Your task to perform on an android device: Go to calendar. Show me events next week Image 0: 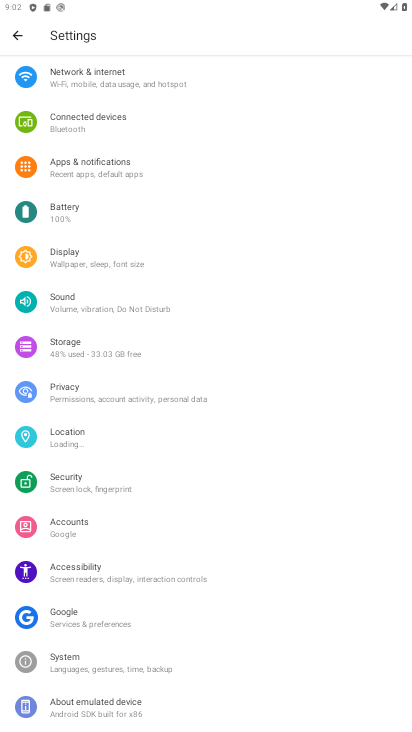
Step 0: press home button
Your task to perform on an android device: Go to calendar. Show me events next week Image 1: 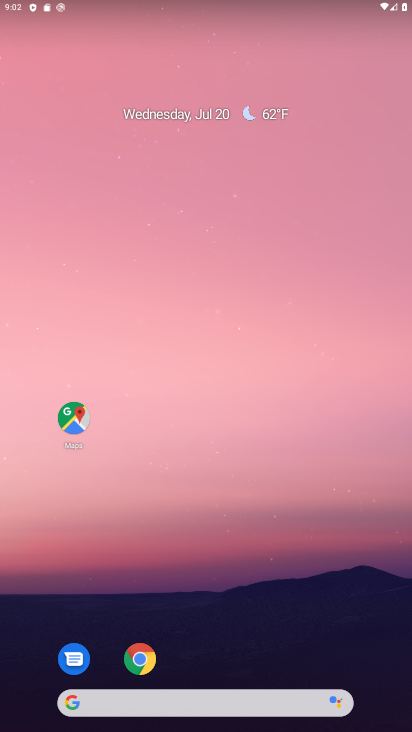
Step 1: drag from (209, 678) to (217, 8)
Your task to perform on an android device: Go to calendar. Show me events next week Image 2: 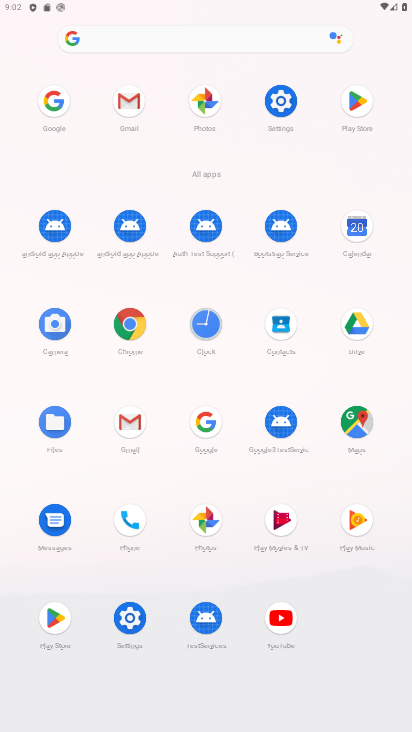
Step 2: click (351, 223)
Your task to perform on an android device: Go to calendar. Show me events next week Image 3: 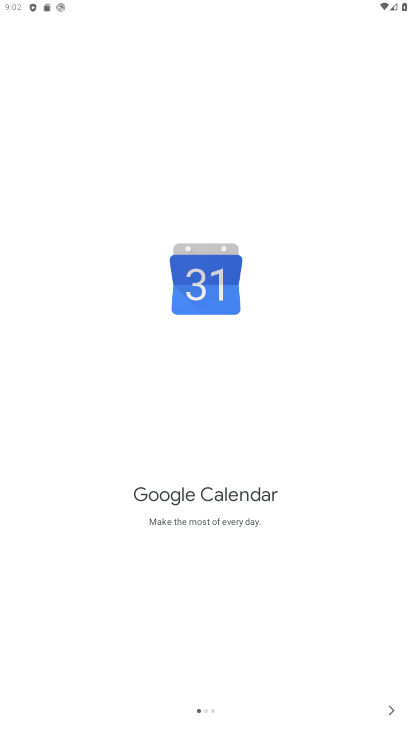
Step 3: click (393, 705)
Your task to perform on an android device: Go to calendar. Show me events next week Image 4: 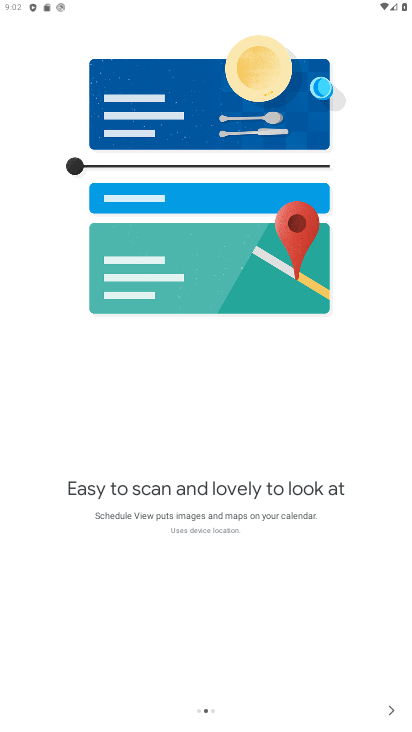
Step 4: click (381, 705)
Your task to perform on an android device: Go to calendar. Show me events next week Image 5: 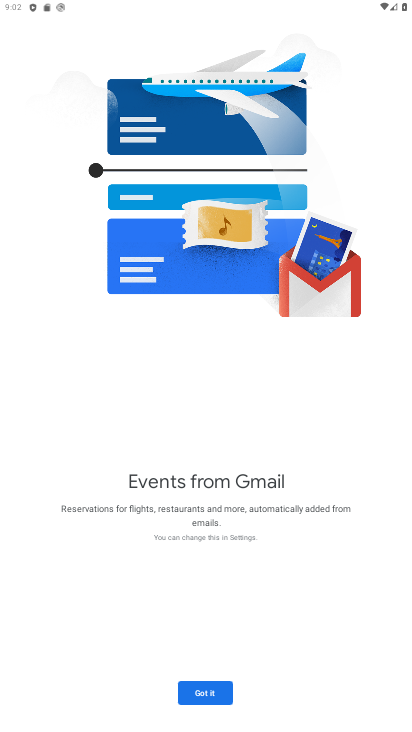
Step 5: click (194, 689)
Your task to perform on an android device: Go to calendar. Show me events next week Image 6: 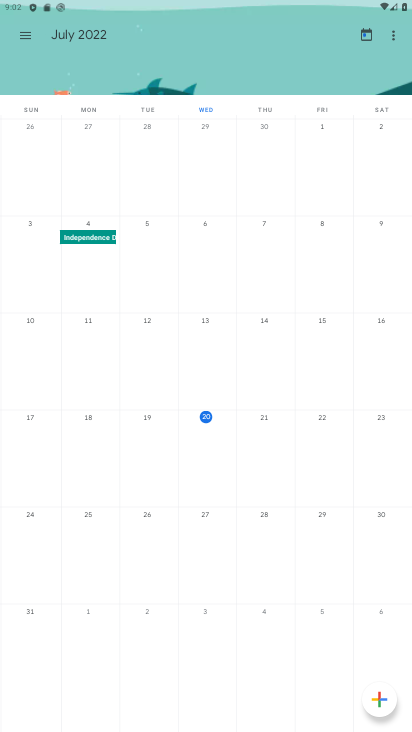
Step 6: click (374, 32)
Your task to perform on an android device: Go to calendar. Show me events next week Image 7: 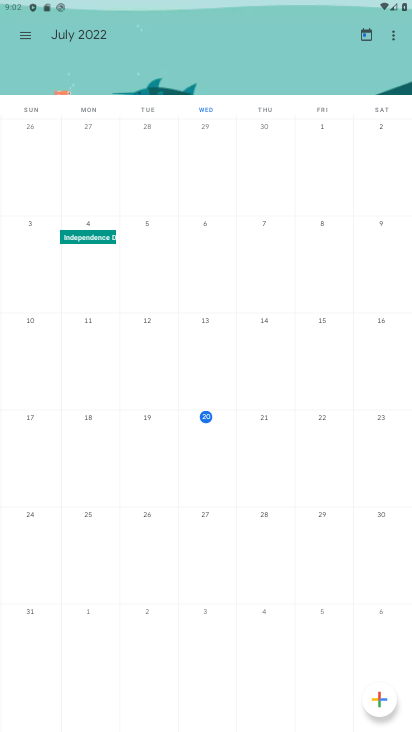
Step 7: click (25, 39)
Your task to perform on an android device: Go to calendar. Show me events next week Image 8: 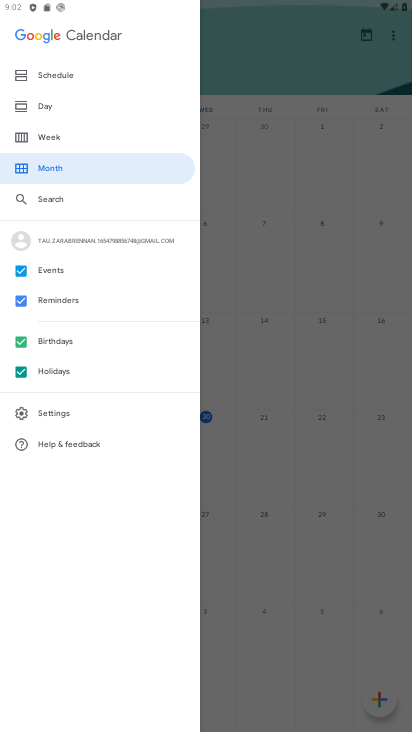
Step 8: click (46, 126)
Your task to perform on an android device: Go to calendar. Show me events next week Image 9: 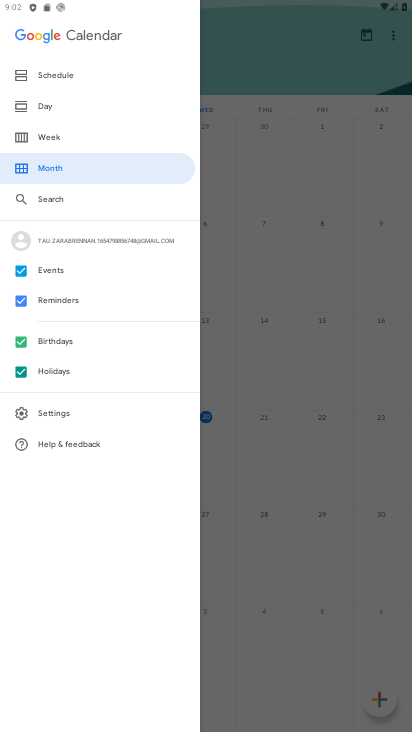
Step 9: click (40, 133)
Your task to perform on an android device: Go to calendar. Show me events next week Image 10: 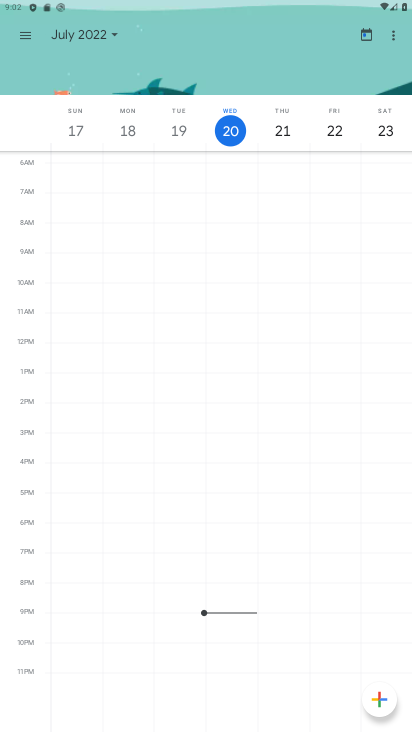
Step 10: task complete